Your task to perform on an android device: change alarm snooze length Image 0: 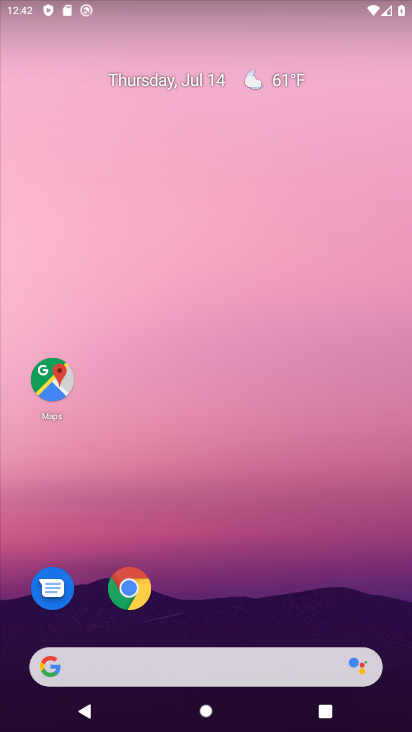
Step 0: drag from (312, 589) to (308, 134)
Your task to perform on an android device: change alarm snooze length Image 1: 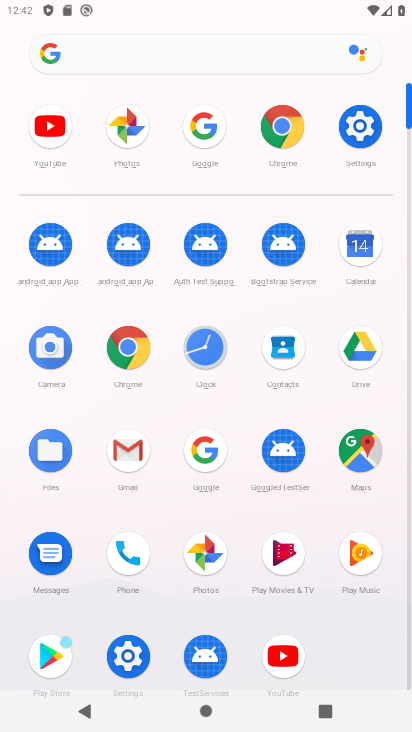
Step 1: click (210, 333)
Your task to perform on an android device: change alarm snooze length Image 2: 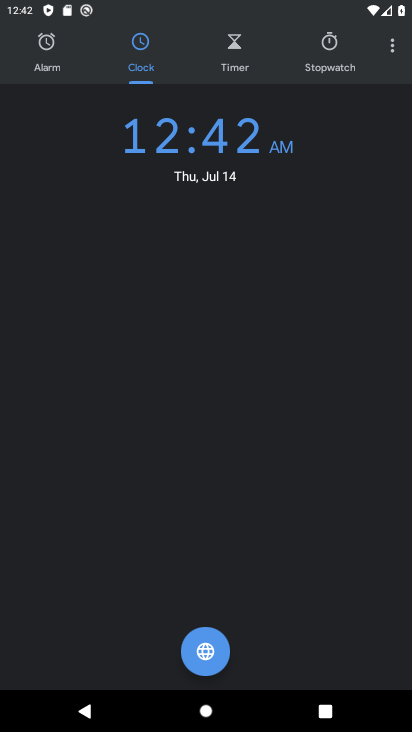
Step 2: click (386, 40)
Your task to perform on an android device: change alarm snooze length Image 3: 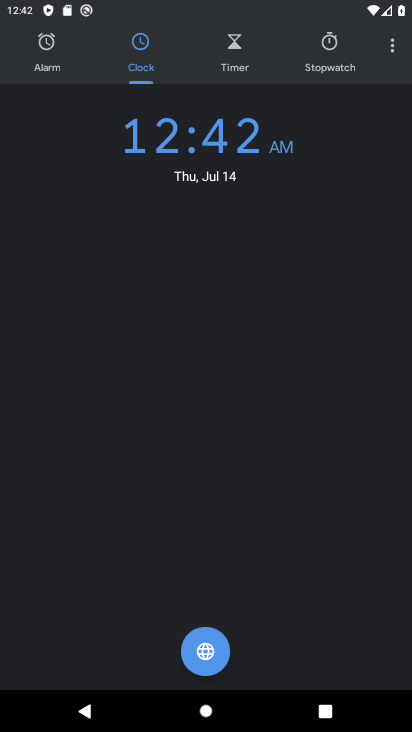
Step 3: click (397, 46)
Your task to perform on an android device: change alarm snooze length Image 4: 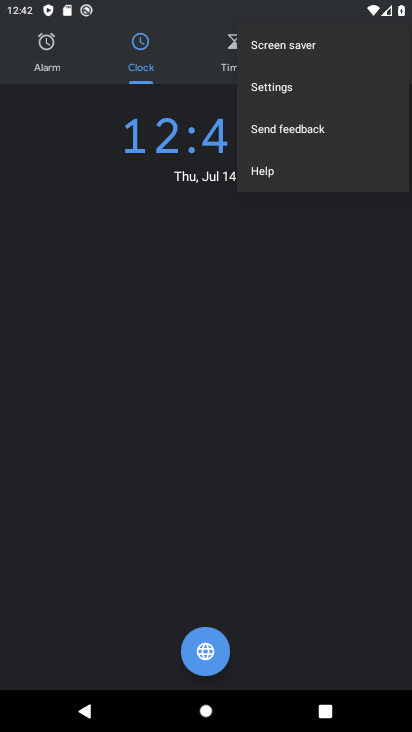
Step 4: click (297, 87)
Your task to perform on an android device: change alarm snooze length Image 5: 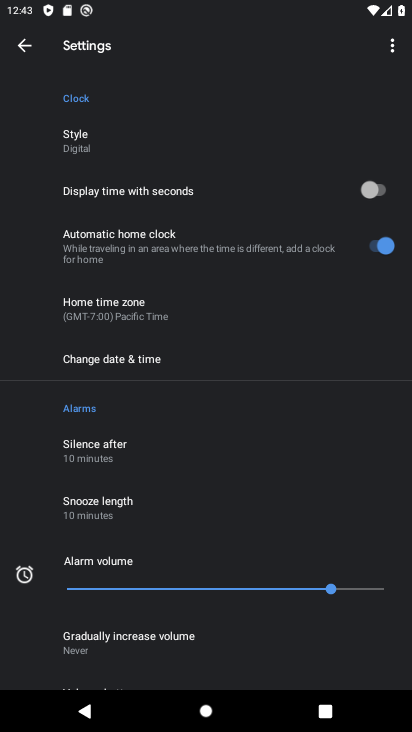
Step 5: click (155, 503)
Your task to perform on an android device: change alarm snooze length Image 6: 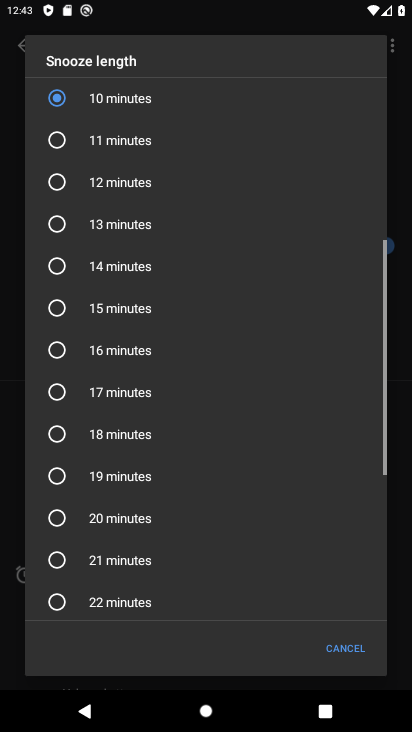
Step 6: click (128, 523)
Your task to perform on an android device: change alarm snooze length Image 7: 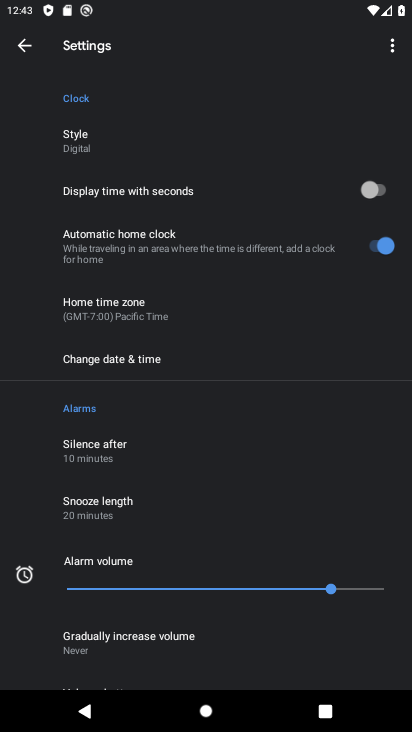
Step 7: task complete